Your task to perform on an android device: change the clock display to analog Image 0: 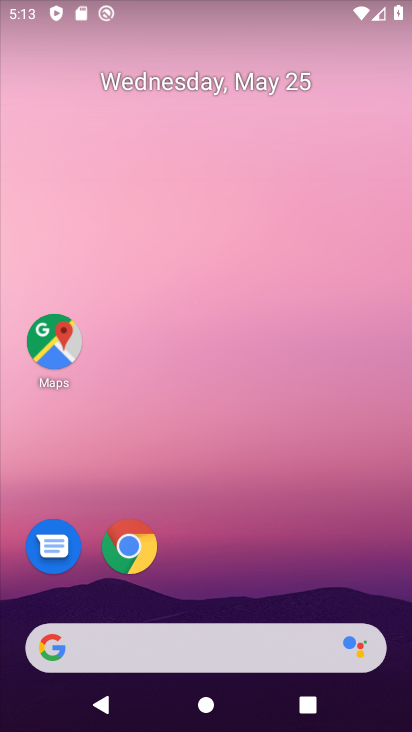
Step 0: drag from (232, 686) to (202, 164)
Your task to perform on an android device: change the clock display to analog Image 1: 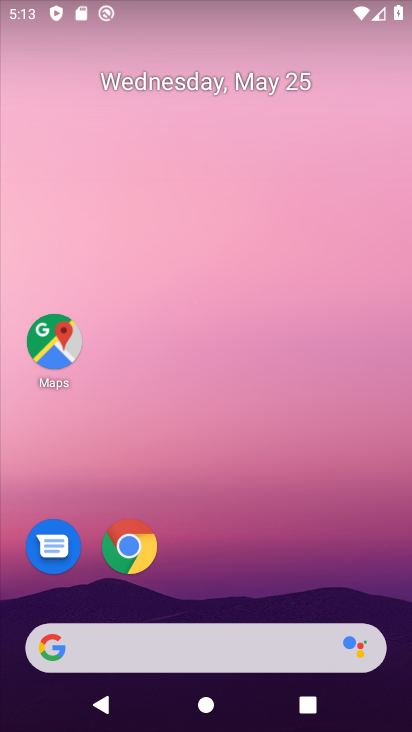
Step 1: drag from (241, 709) to (258, 73)
Your task to perform on an android device: change the clock display to analog Image 2: 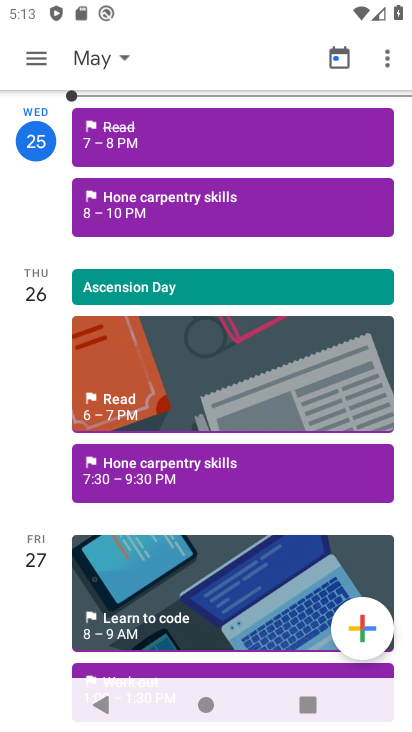
Step 2: click (386, 46)
Your task to perform on an android device: change the clock display to analog Image 3: 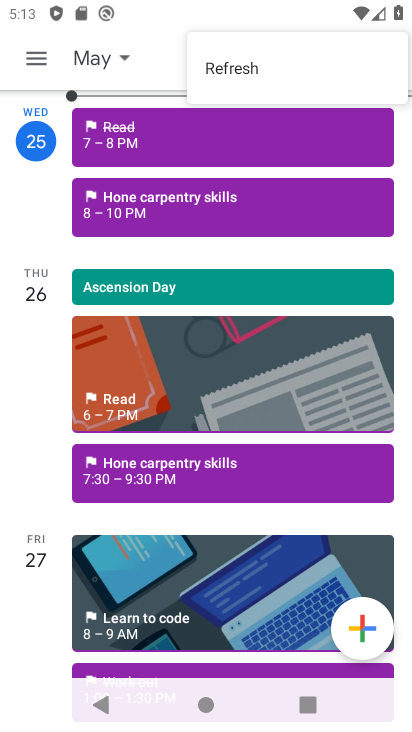
Step 3: task complete